Your task to perform on an android device: see sites visited before in the chrome app Image 0: 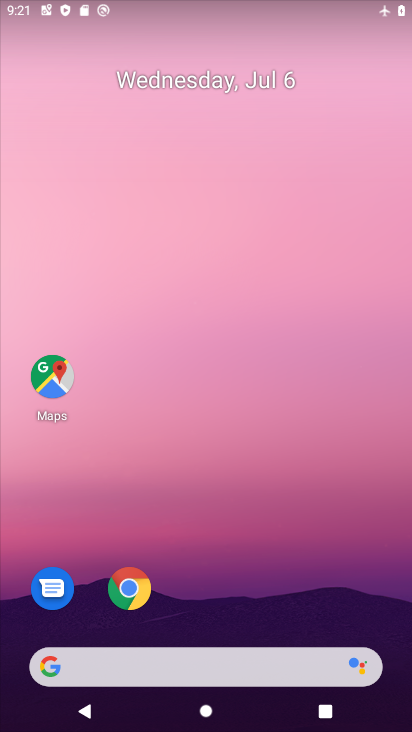
Step 0: click (129, 592)
Your task to perform on an android device: see sites visited before in the chrome app Image 1: 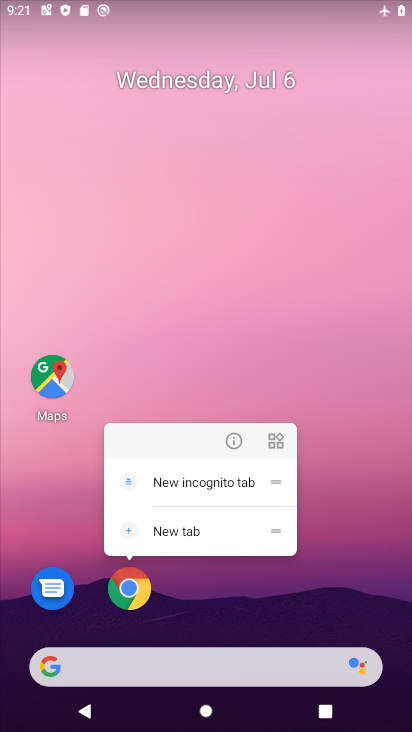
Step 1: click (142, 591)
Your task to perform on an android device: see sites visited before in the chrome app Image 2: 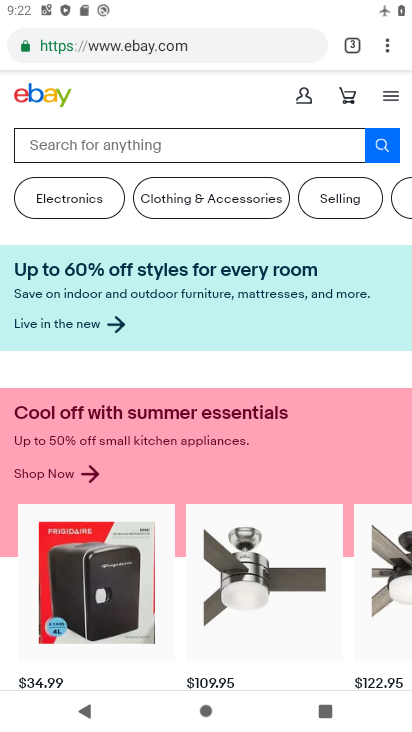
Step 2: click (389, 53)
Your task to perform on an android device: see sites visited before in the chrome app Image 3: 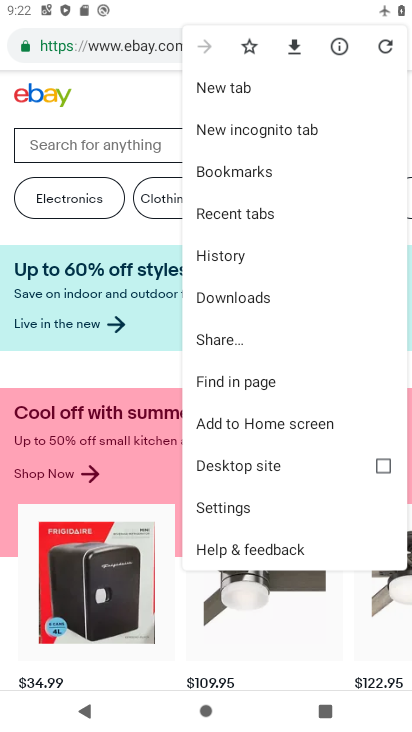
Step 3: click (230, 216)
Your task to perform on an android device: see sites visited before in the chrome app Image 4: 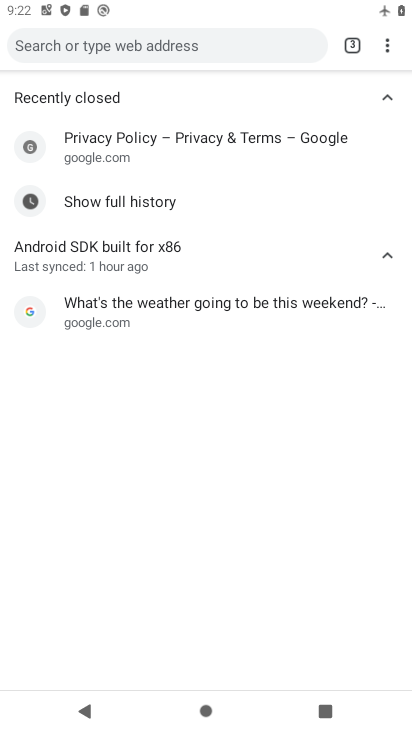
Step 4: task complete